Your task to perform on an android device: Open Google Chrome and open the bookmarks view Image 0: 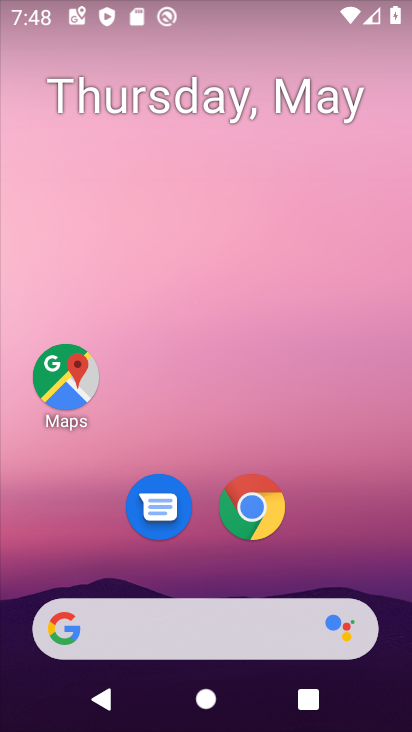
Step 0: drag from (242, 660) to (174, 251)
Your task to perform on an android device: Open Google Chrome and open the bookmarks view Image 1: 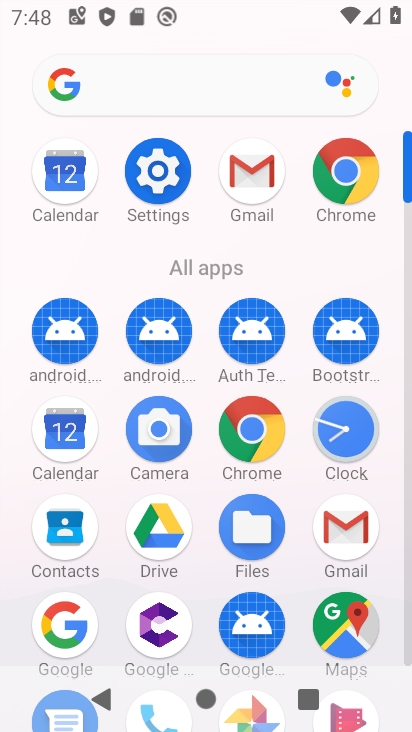
Step 1: click (318, 183)
Your task to perform on an android device: Open Google Chrome and open the bookmarks view Image 2: 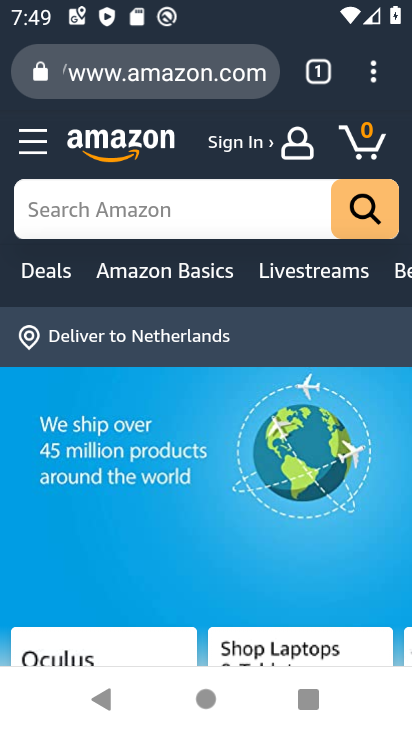
Step 2: click (371, 76)
Your task to perform on an android device: Open Google Chrome and open the bookmarks view Image 3: 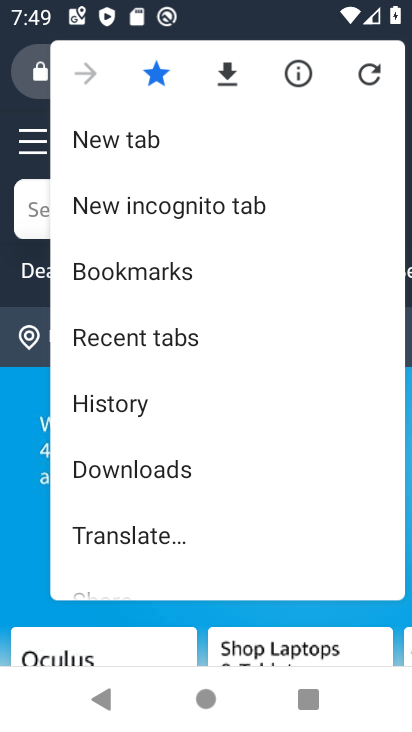
Step 3: click (145, 265)
Your task to perform on an android device: Open Google Chrome and open the bookmarks view Image 4: 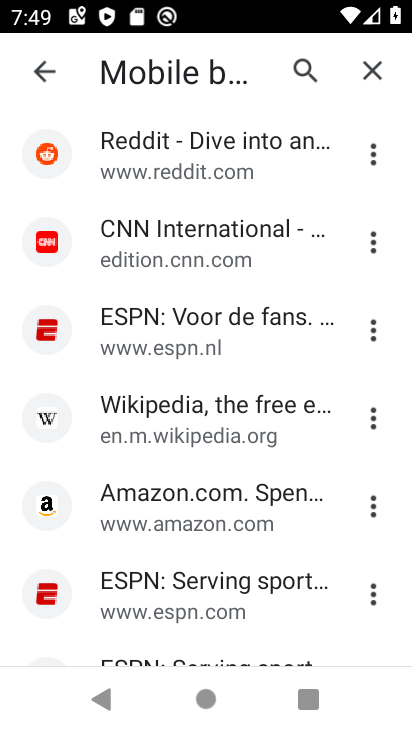
Step 4: task complete